Your task to perform on an android device: star an email in the gmail app Image 0: 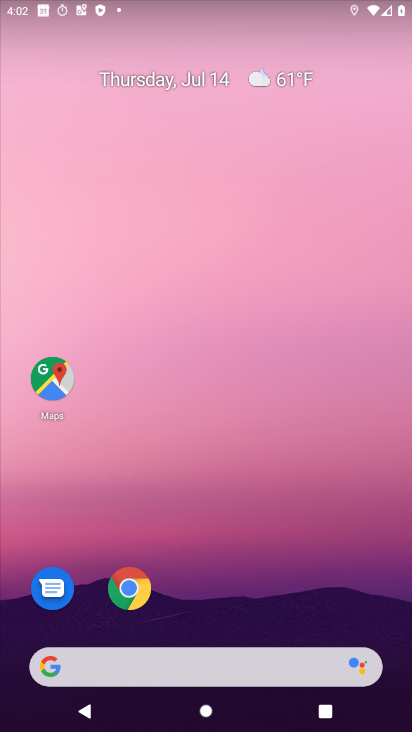
Step 0: drag from (187, 670) to (199, 254)
Your task to perform on an android device: star an email in the gmail app Image 1: 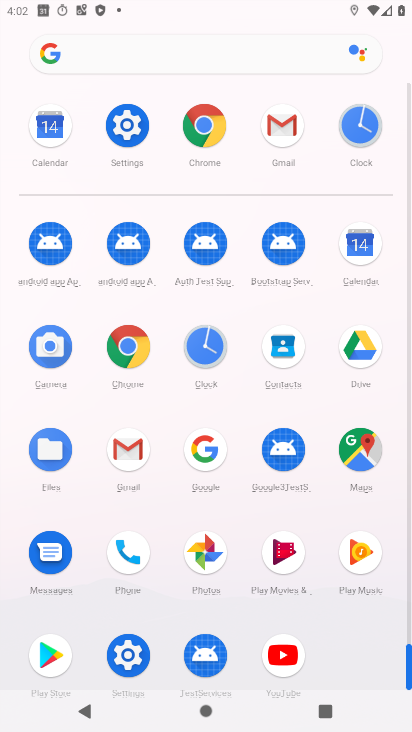
Step 1: click (277, 122)
Your task to perform on an android device: star an email in the gmail app Image 2: 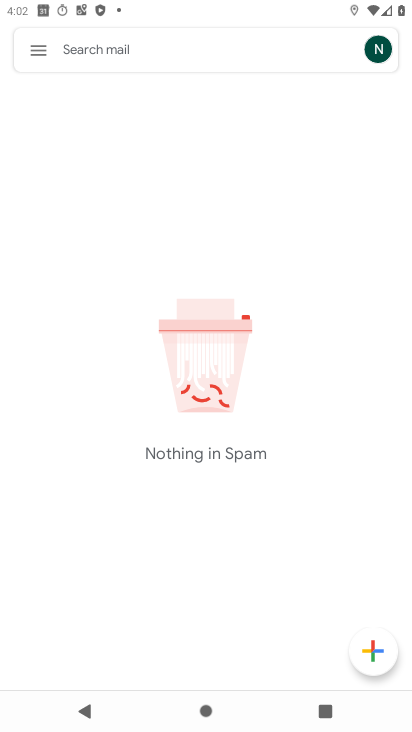
Step 2: click (38, 48)
Your task to perform on an android device: star an email in the gmail app Image 3: 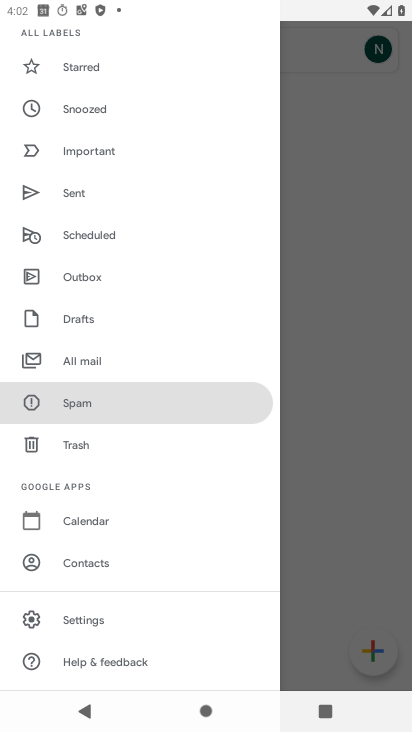
Step 3: click (67, 356)
Your task to perform on an android device: star an email in the gmail app Image 4: 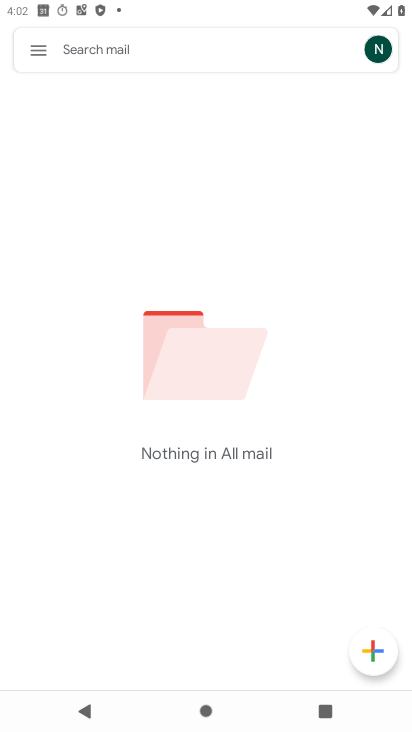
Step 4: click (42, 50)
Your task to perform on an android device: star an email in the gmail app Image 5: 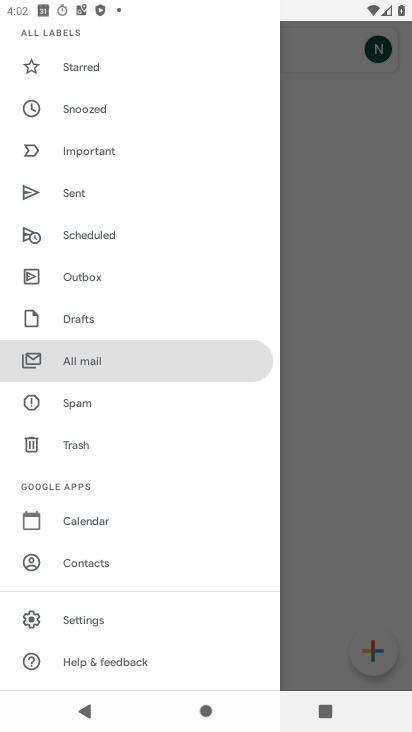
Step 5: drag from (109, 157) to (83, 254)
Your task to perform on an android device: star an email in the gmail app Image 6: 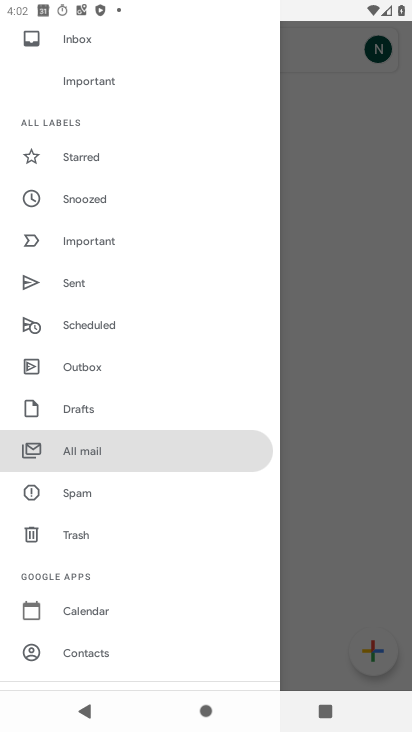
Step 6: drag from (94, 129) to (137, 250)
Your task to perform on an android device: star an email in the gmail app Image 7: 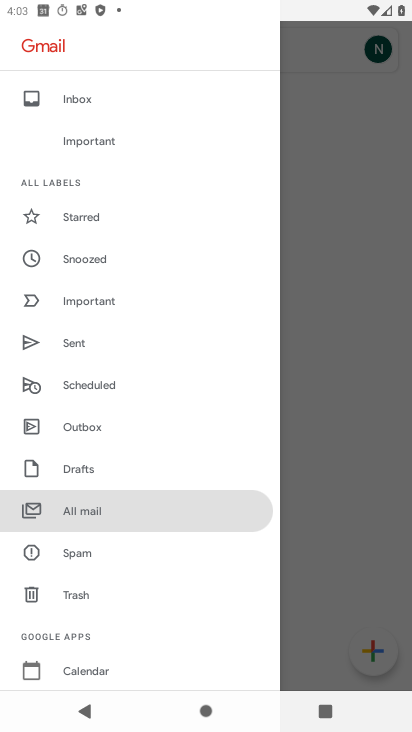
Step 7: click (73, 105)
Your task to perform on an android device: star an email in the gmail app Image 8: 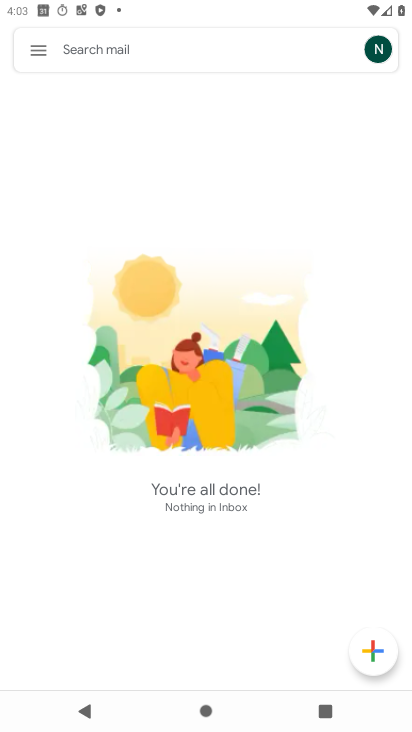
Step 8: task complete